Your task to perform on an android device: open sync settings in chrome Image 0: 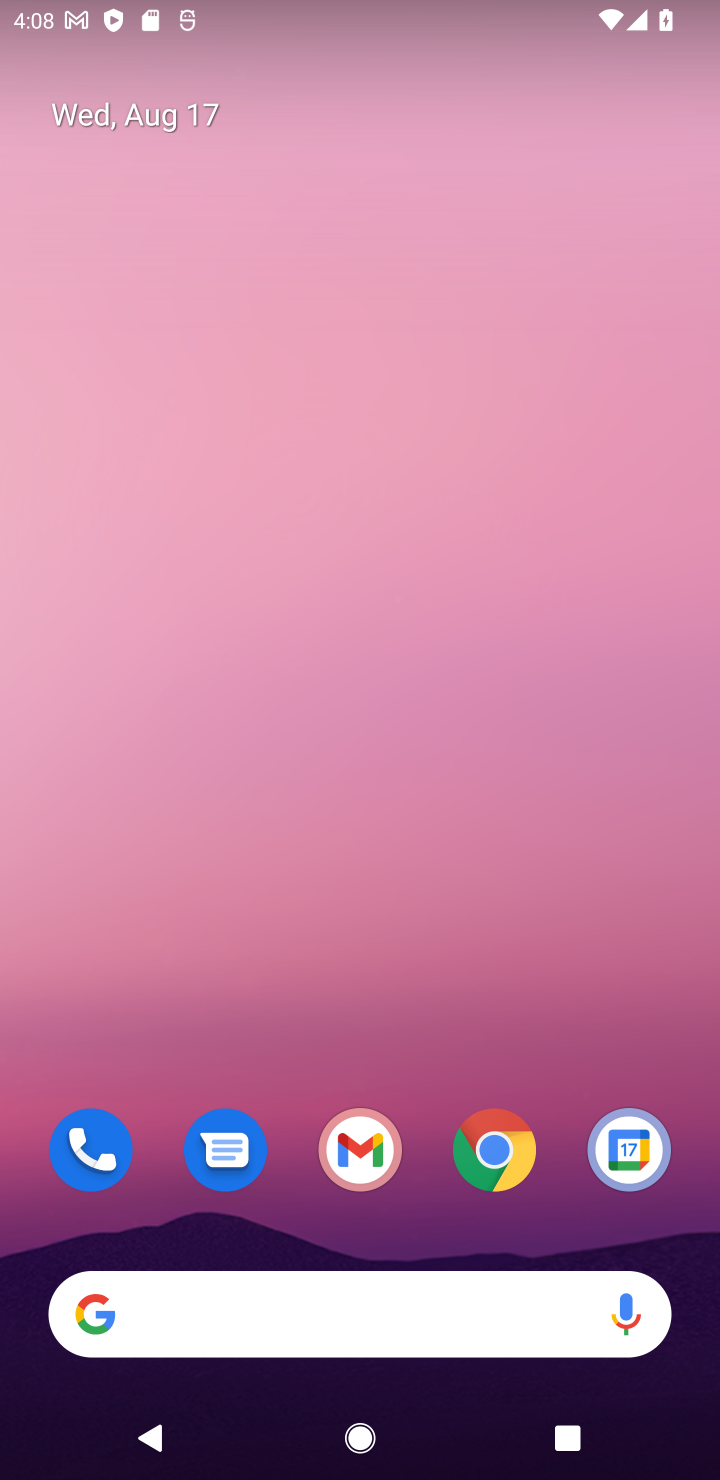
Step 0: drag from (644, 1252) to (417, 67)
Your task to perform on an android device: open sync settings in chrome Image 1: 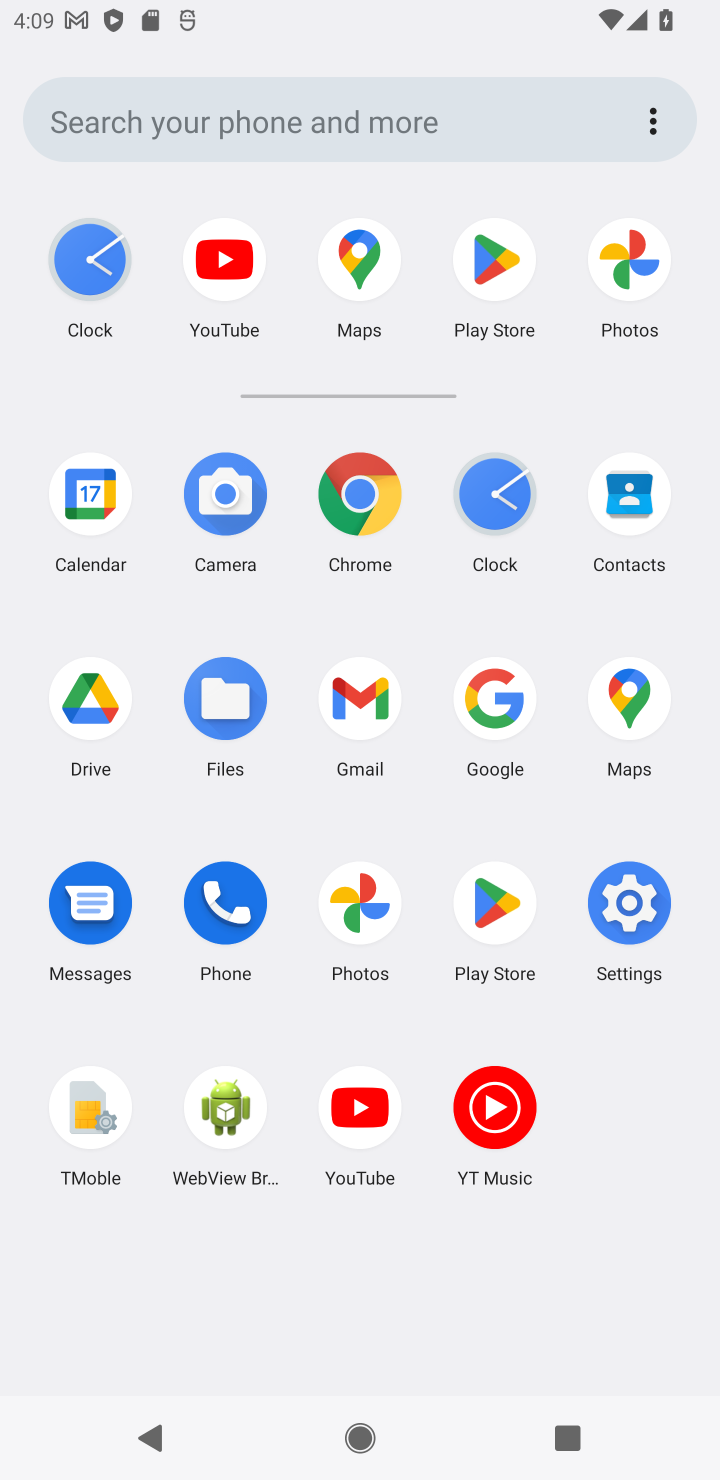
Step 1: click (376, 525)
Your task to perform on an android device: open sync settings in chrome Image 2: 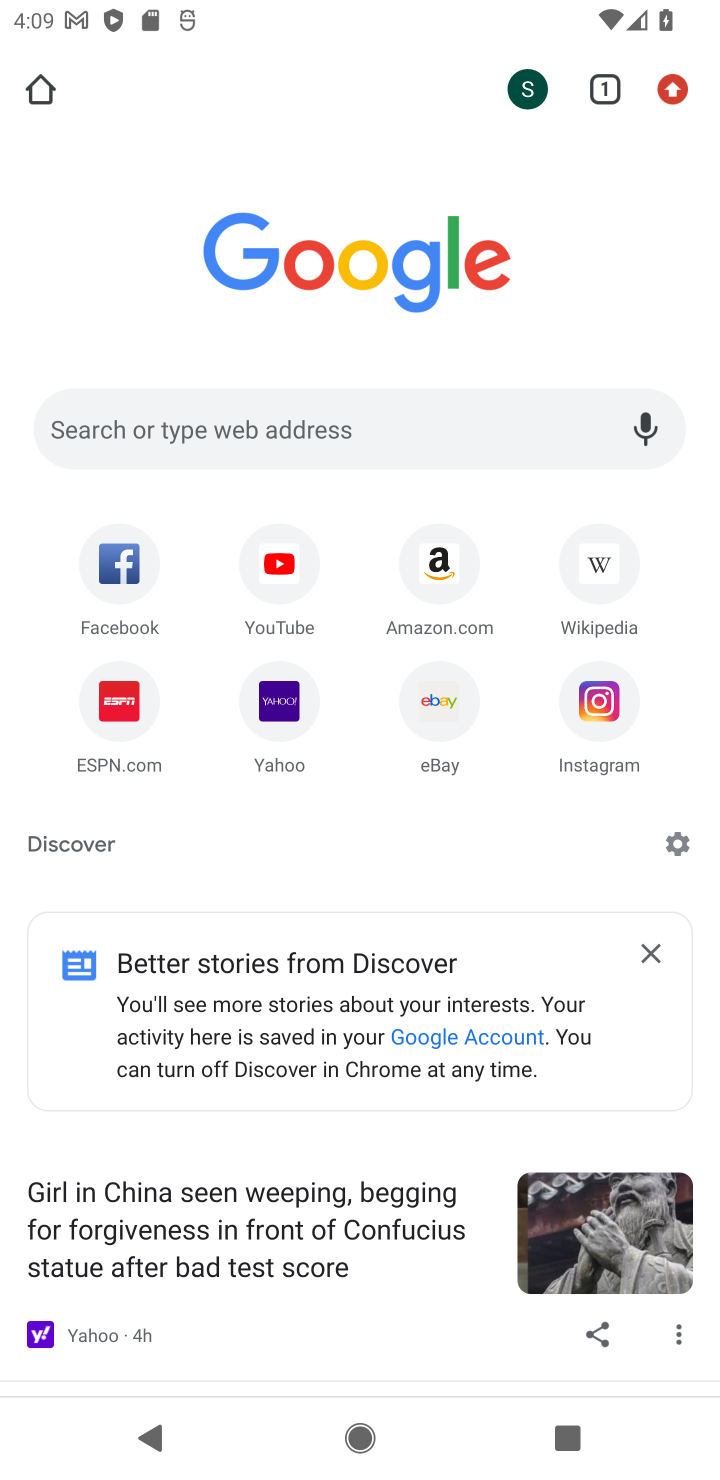
Step 2: click (661, 85)
Your task to perform on an android device: open sync settings in chrome Image 3: 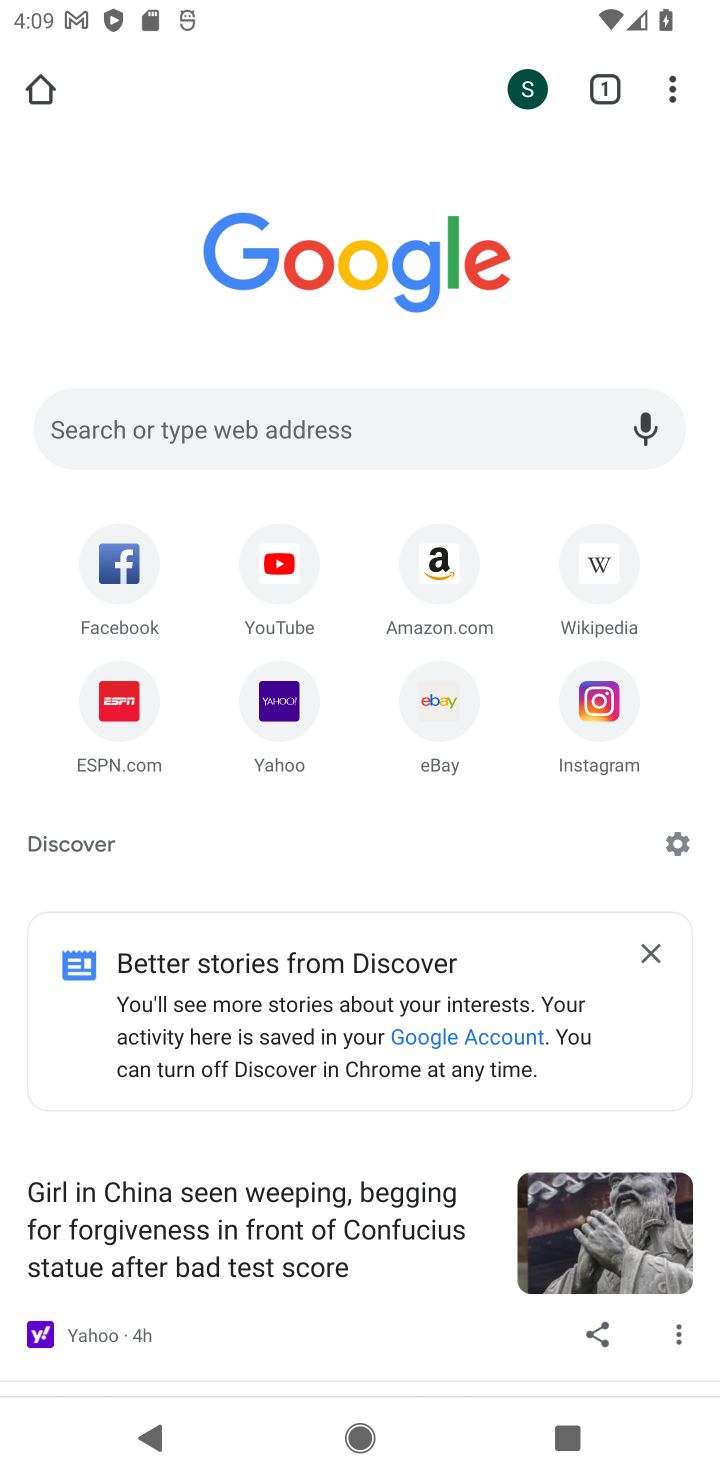
Step 3: click (673, 86)
Your task to perform on an android device: open sync settings in chrome Image 4: 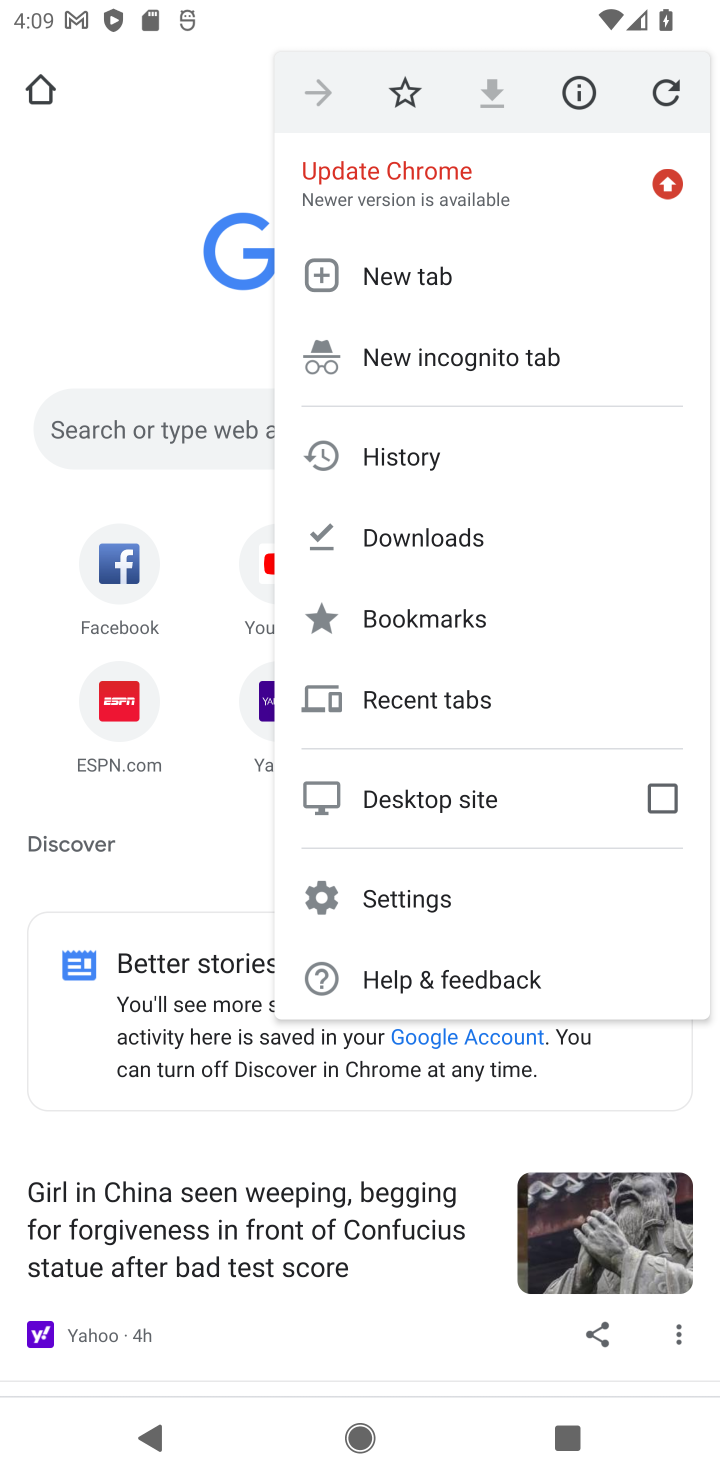
Step 4: click (407, 893)
Your task to perform on an android device: open sync settings in chrome Image 5: 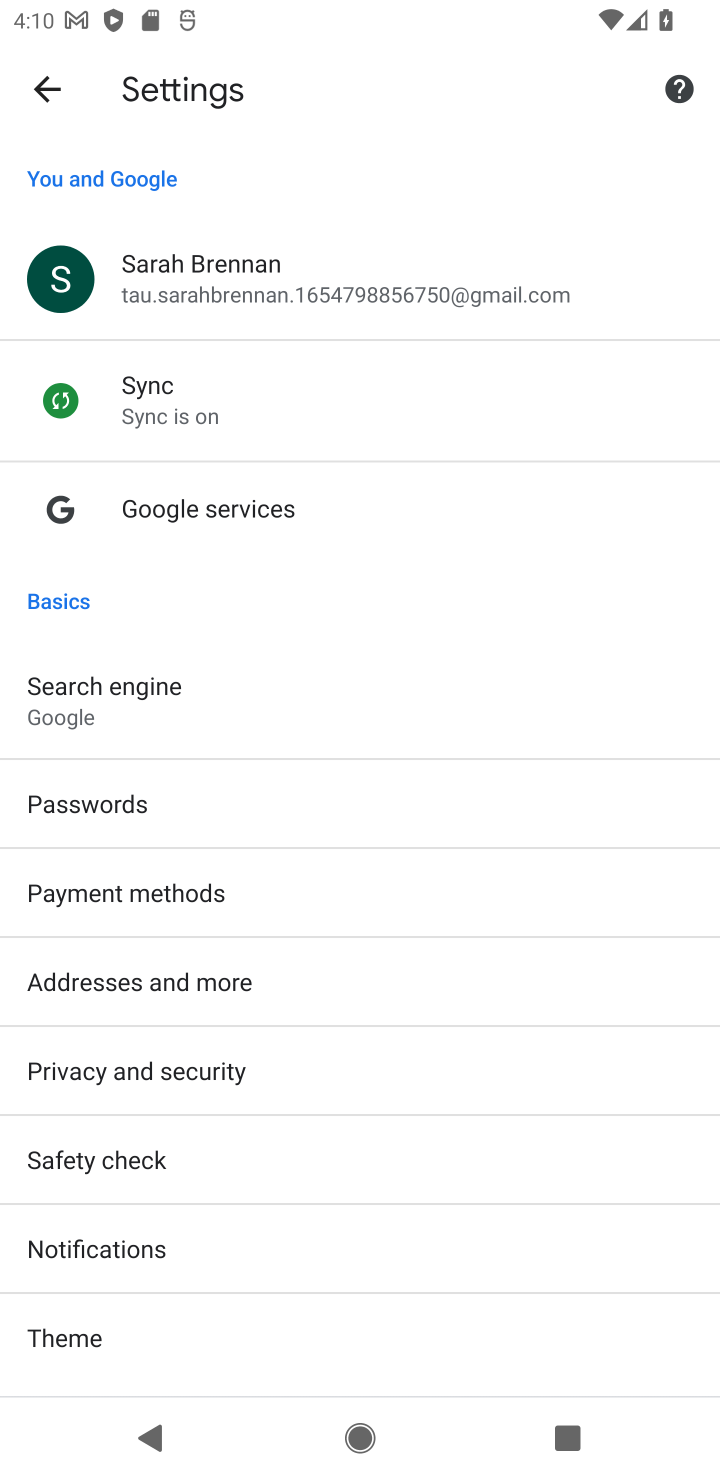
Step 5: drag from (228, 1195) to (255, 235)
Your task to perform on an android device: open sync settings in chrome Image 6: 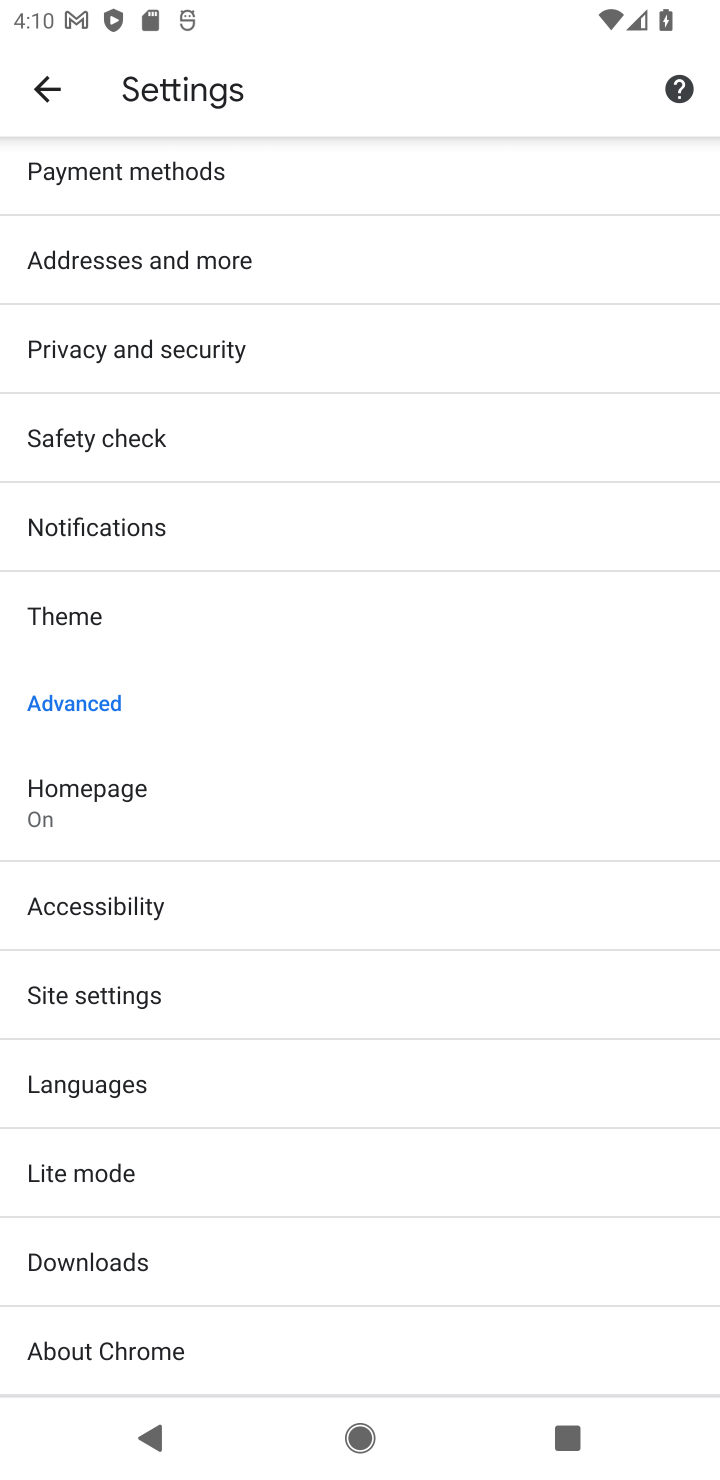
Step 6: click (162, 1008)
Your task to perform on an android device: open sync settings in chrome Image 7: 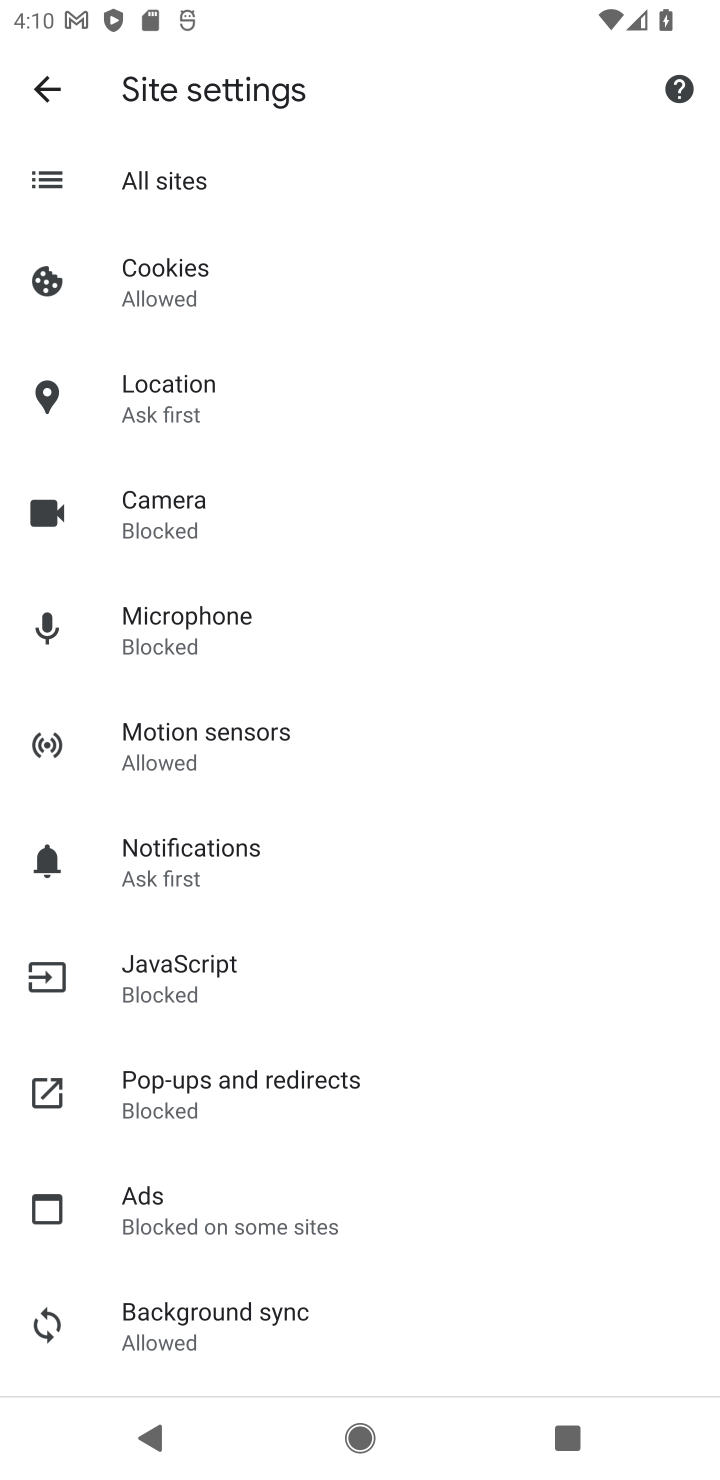
Step 7: click (233, 1294)
Your task to perform on an android device: open sync settings in chrome Image 8: 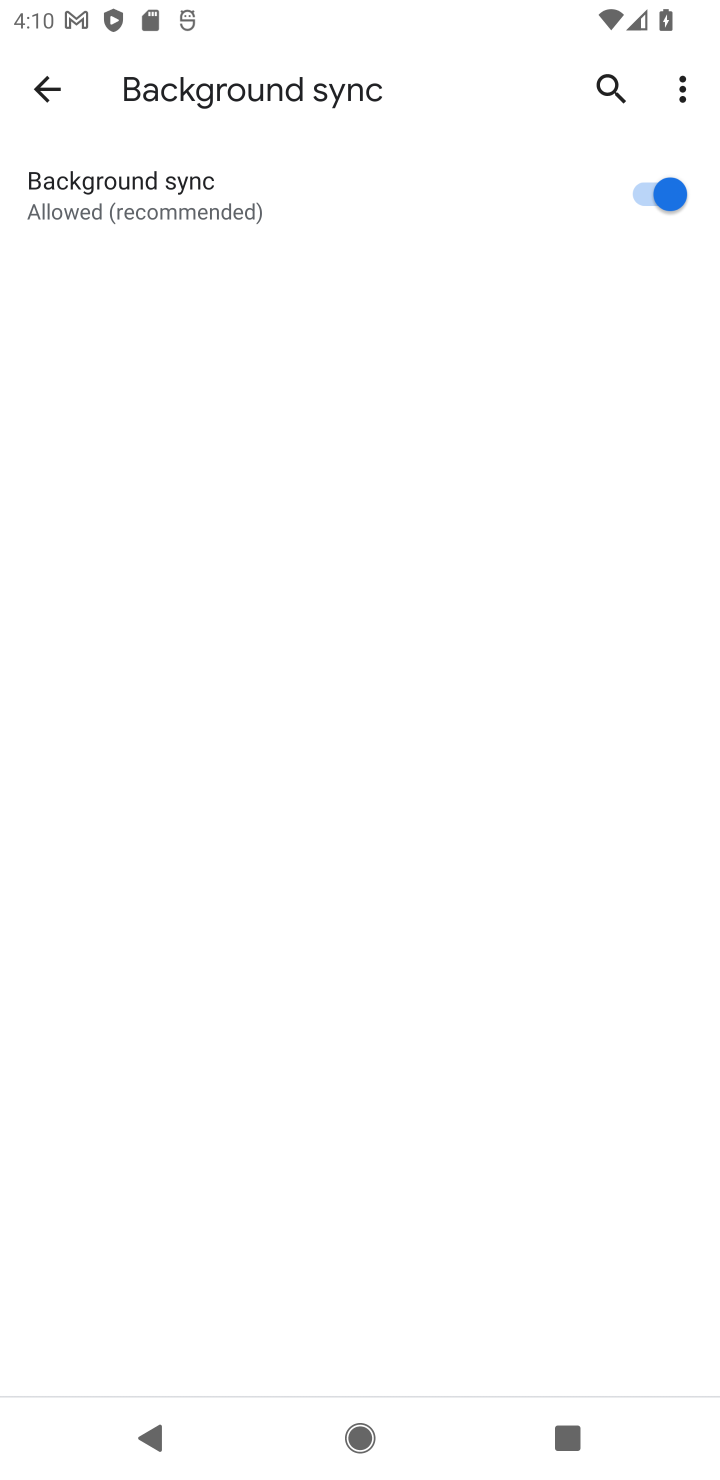
Step 8: task complete